Your task to perform on an android device: Open settings Image 0: 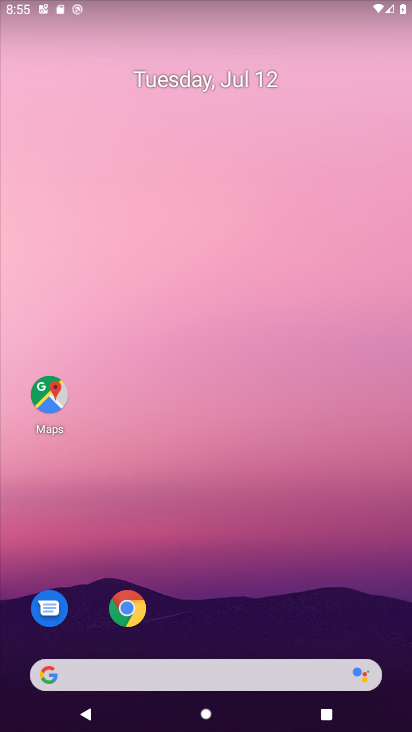
Step 0: drag from (200, 676) to (298, 189)
Your task to perform on an android device: Open settings Image 1: 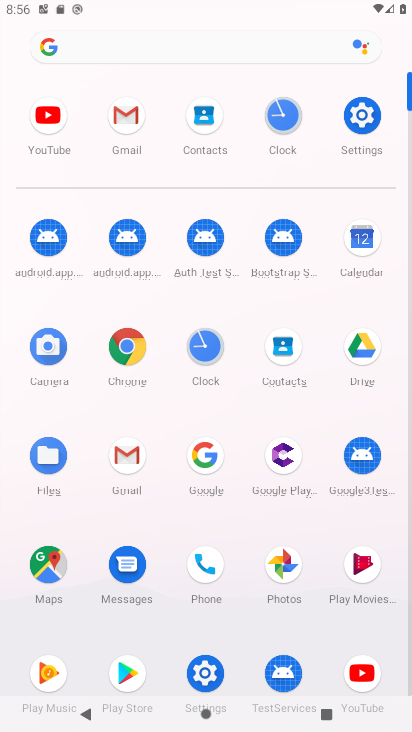
Step 1: click (359, 121)
Your task to perform on an android device: Open settings Image 2: 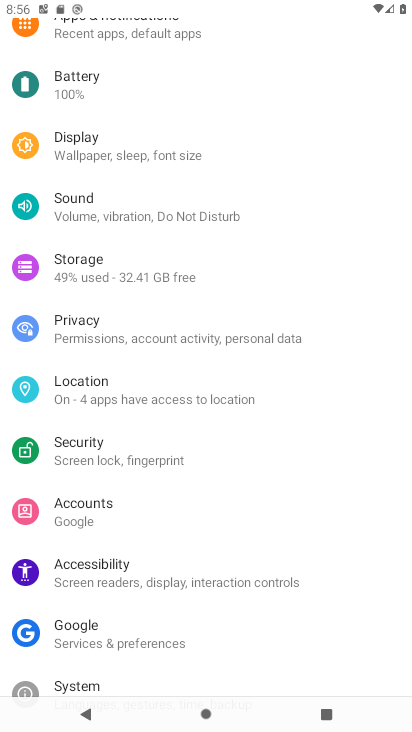
Step 2: task complete